Your task to perform on an android device: turn on bluetooth scan Image 0: 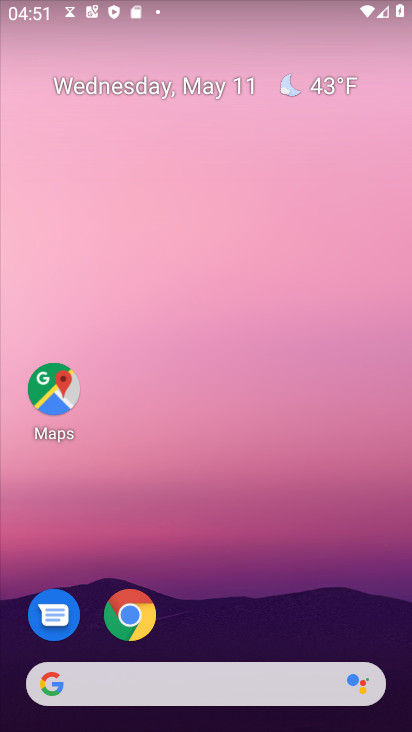
Step 0: drag from (328, 547) to (281, 7)
Your task to perform on an android device: turn on bluetooth scan Image 1: 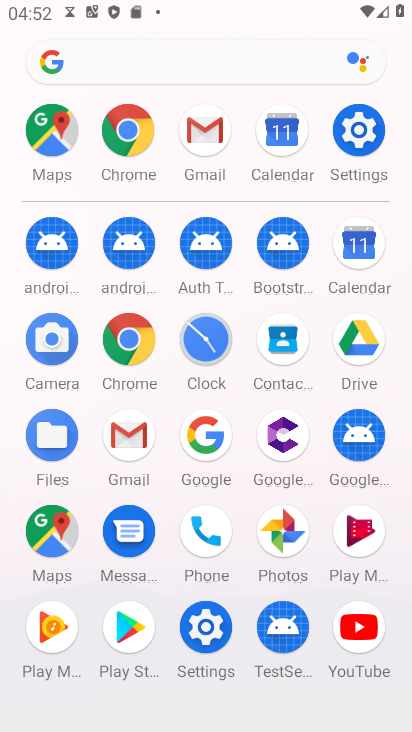
Step 1: click (202, 624)
Your task to perform on an android device: turn on bluetooth scan Image 2: 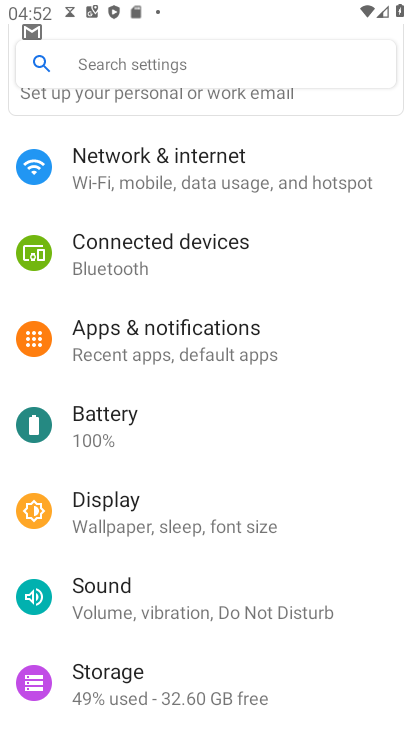
Step 2: drag from (332, 500) to (329, 151)
Your task to perform on an android device: turn on bluetooth scan Image 3: 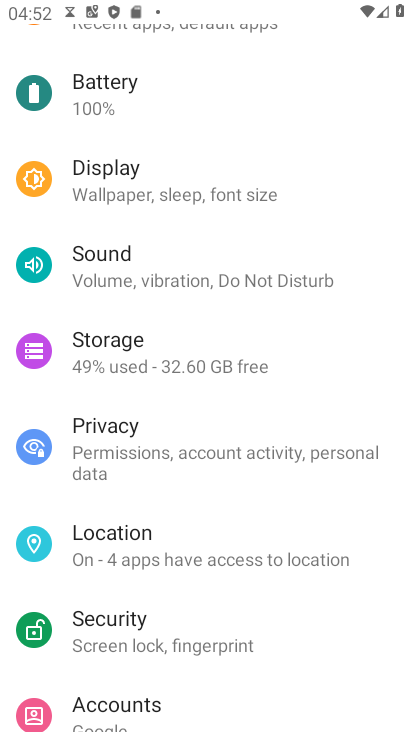
Step 3: click (176, 537)
Your task to perform on an android device: turn on bluetooth scan Image 4: 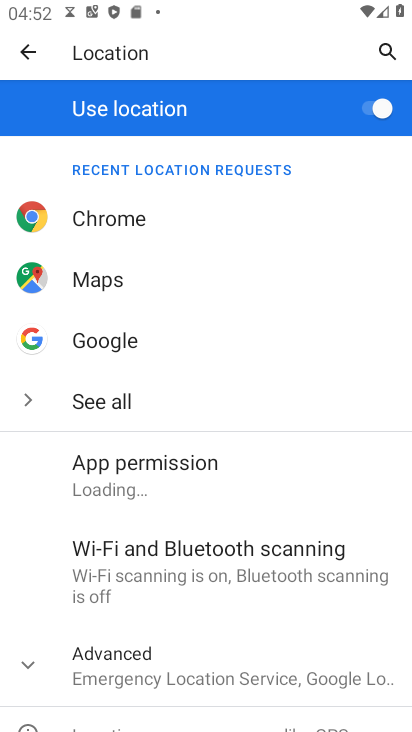
Step 4: click (181, 559)
Your task to perform on an android device: turn on bluetooth scan Image 5: 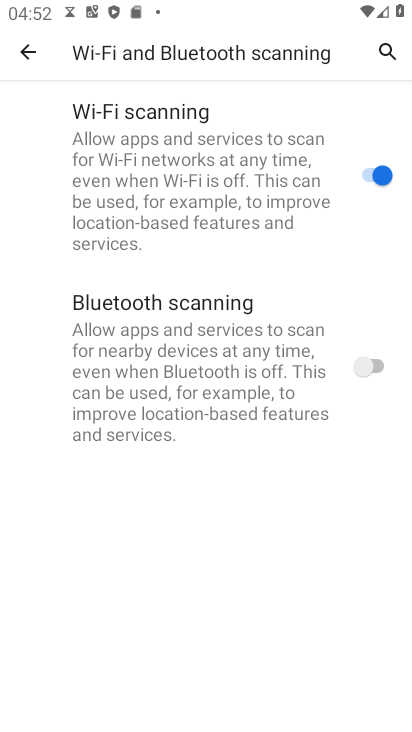
Step 5: click (367, 362)
Your task to perform on an android device: turn on bluetooth scan Image 6: 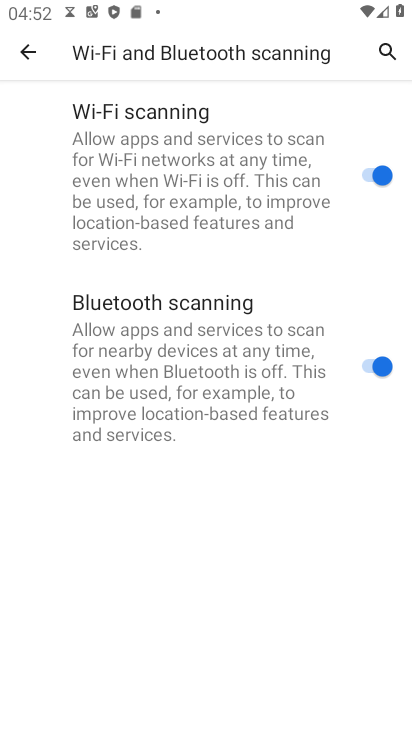
Step 6: task complete